Your task to perform on an android device: add a contact Image 0: 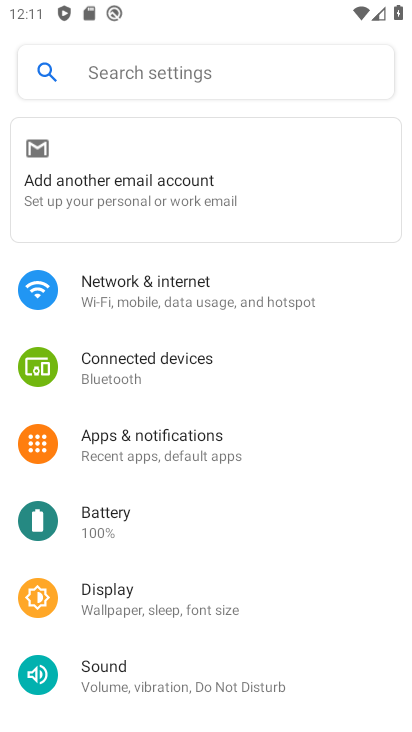
Step 0: press home button
Your task to perform on an android device: add a contact Image 1: 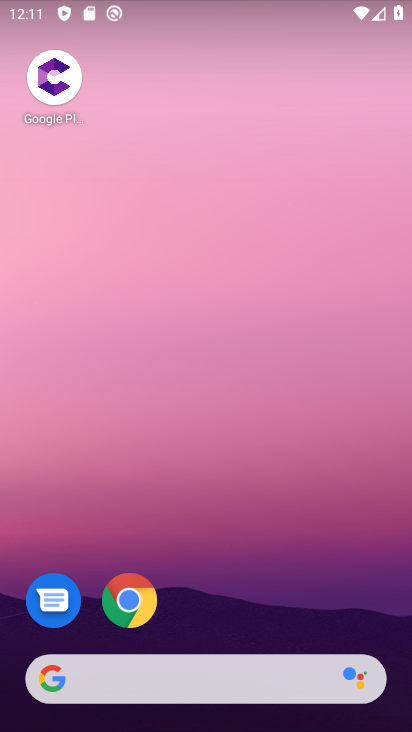
Step 1: drag from (260, 620) to (235, 23)
Your task to perform on an android device: add a contact Image 2: 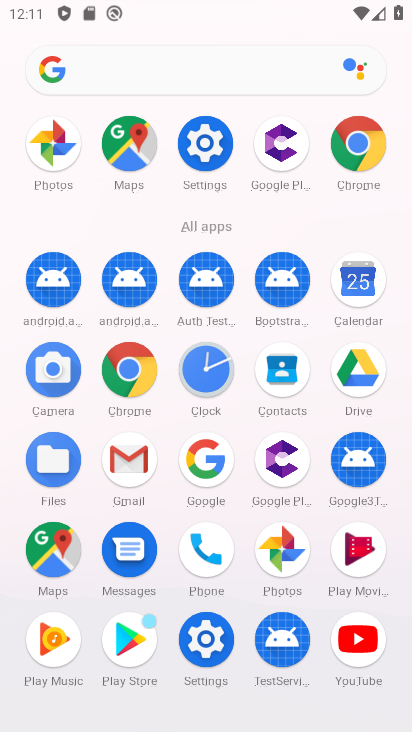
Step 2: click (287, 365)
Your task to perform on an android device: add a contact Image 3: 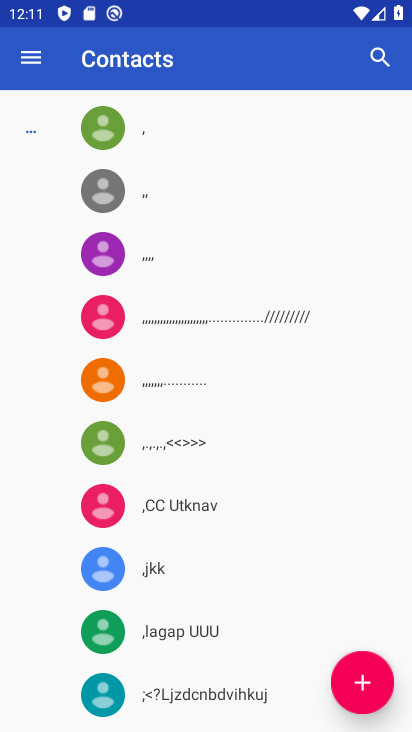
Step 3: click (348, 675)
Your task to perform on an android device: add a contact Image 4: 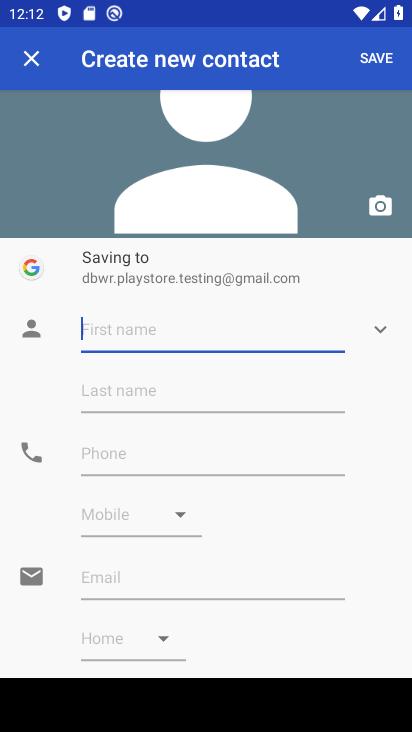
Step 4: type "hgfdffyuiij"
Your task to perform on an android device: add a contact Image 5: 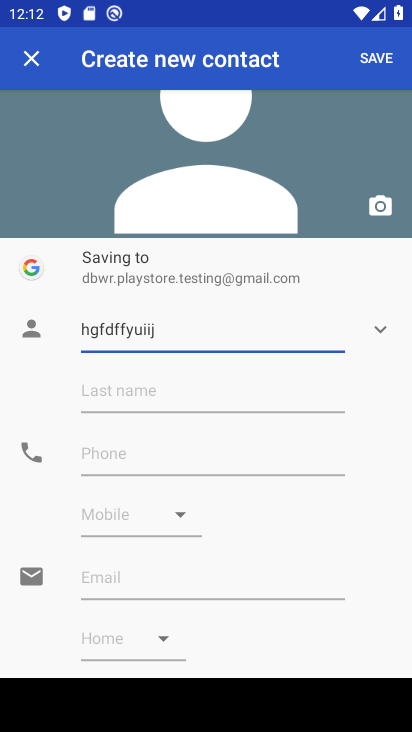
Step 5: click (154, 460)
Your task to perform on an android device: add a contact Image 6: 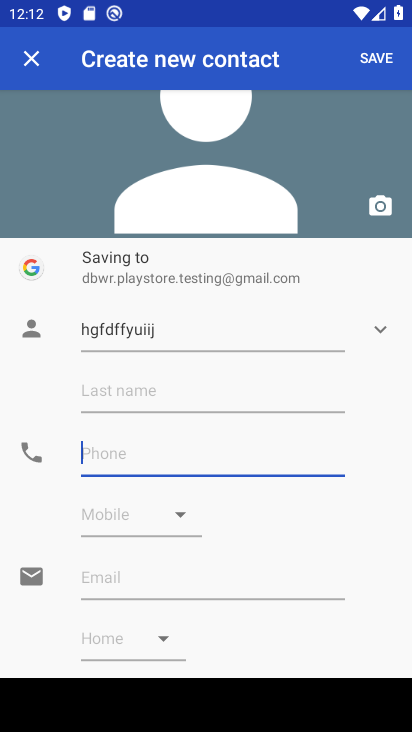
Step 6: type "8876543213"
Your task to perform on an android device: add a contact Image 7: 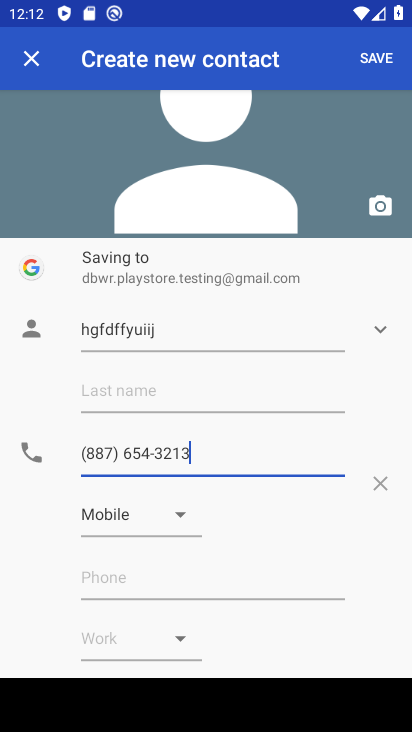
Step 7: click (373, 62)
Your task to perform on an android device: add a contact Image 8: 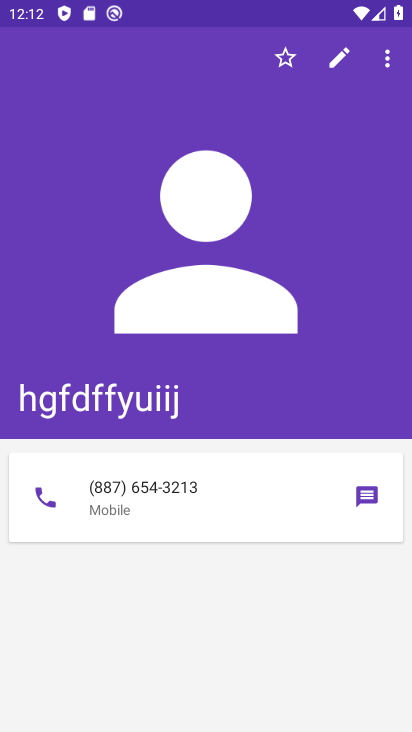
Step 8: task complete